Your task to perform on an android device: open chrome privacy settings Image 0: 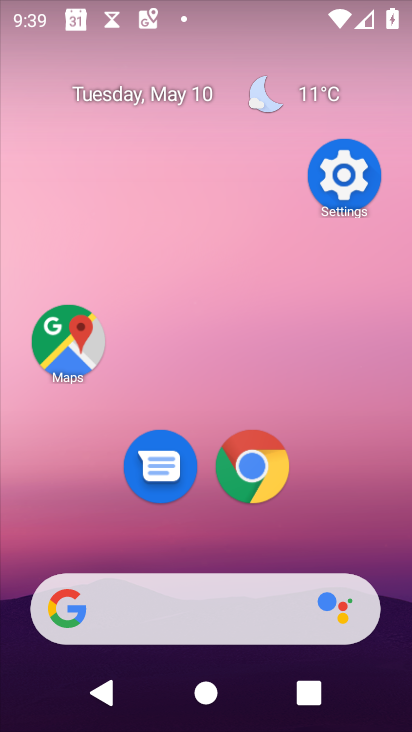
Step 0: click (253, 455)
Your task to perform on an android device: open chrome privacy settings Image 1: 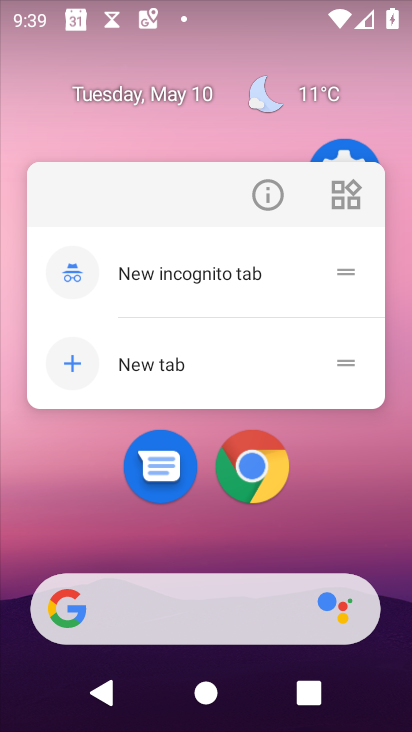
Step 1: click (259, 473)
Your task to perform on an android device: open chrome privacy settings Image 2: 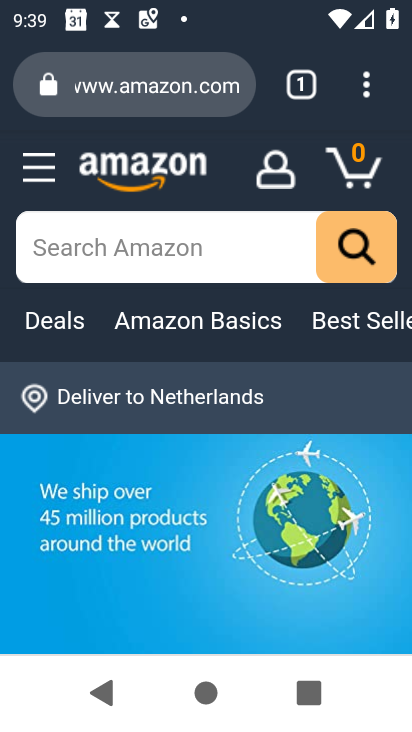
Step 2: click (364, 94)
Your task to perform on an android device: open chrome privacy settings Image 3: 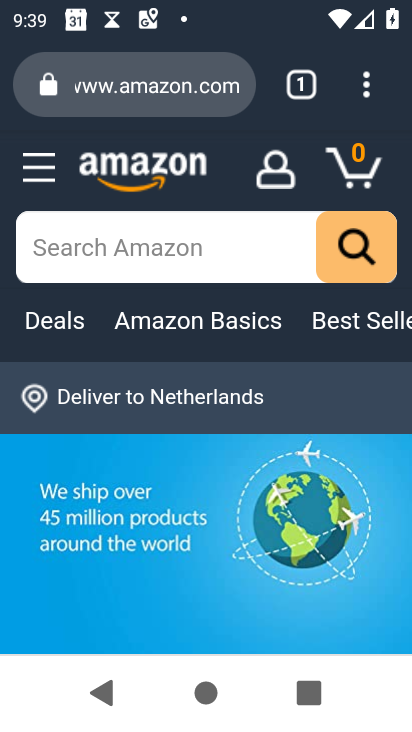
Step 3: click (358, 92)
Your task to perform on an android device: open chrome privacy settings Image 4: 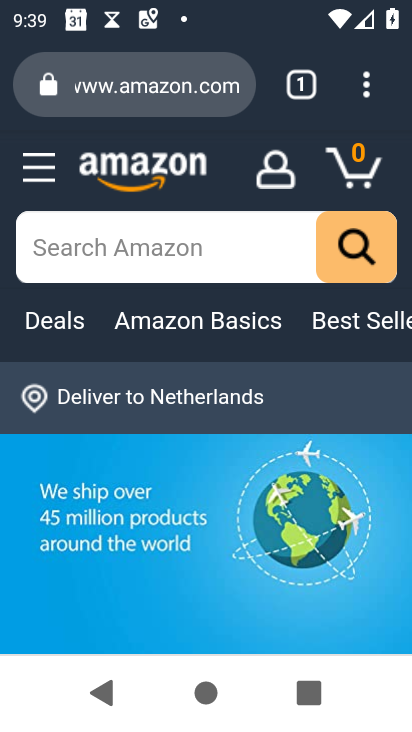
Step 4: click (364, 93)
Your task to perform on an android device: open chrome privacy settings Image 5: 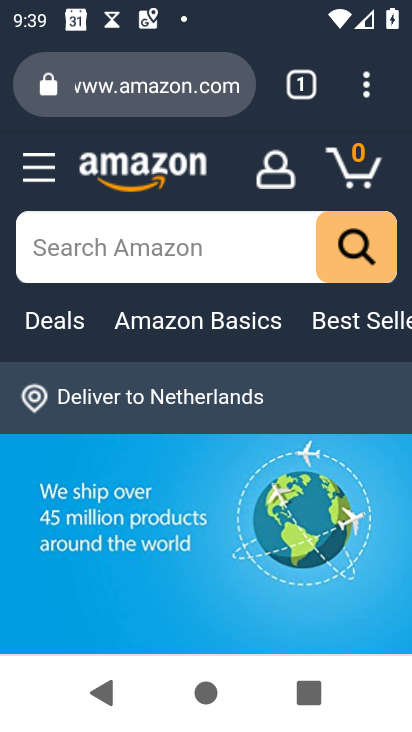
Step 5: click (393, 95)
Your task to perform on an android device: open chrome privacy settings Image 6: 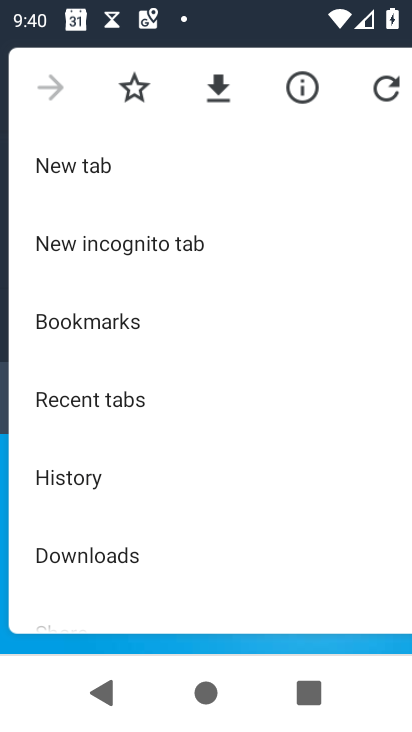
Step 6: drag from (208, 597) to (262, 307)
Your task to perform on an android device: open chrome privacy settings Image 7: 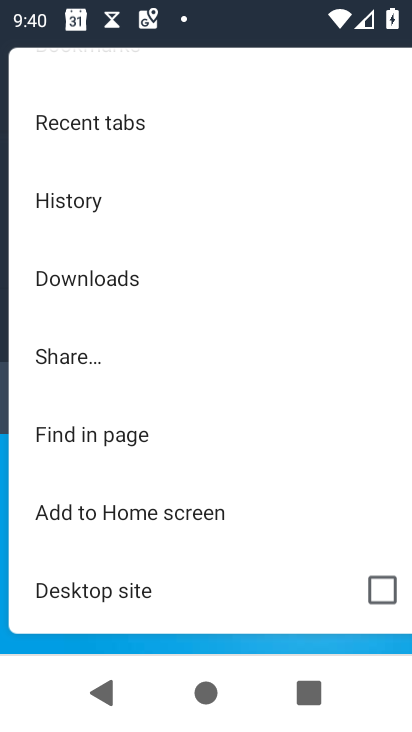
Step 7: drag from (211, 598) to (253, 377)
Your task to perform on an android device: open chrome privacy settings Image 8: 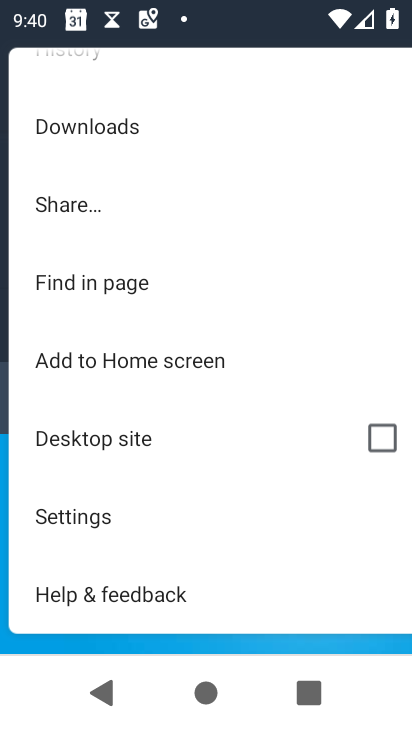
Step 8: click (185, 516)
Your task to perform on an android device: open chrome privacy settings Image 9: 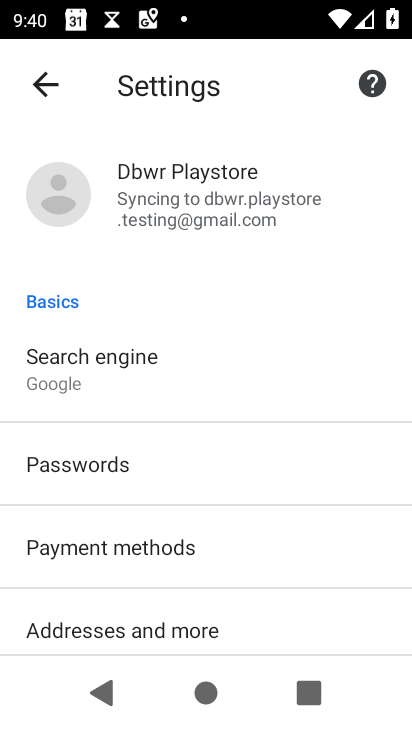
Step 9: drag from (166, 585) to (160, 411)
Your task to perform on an android device: open chrome privacy settings Image 10: 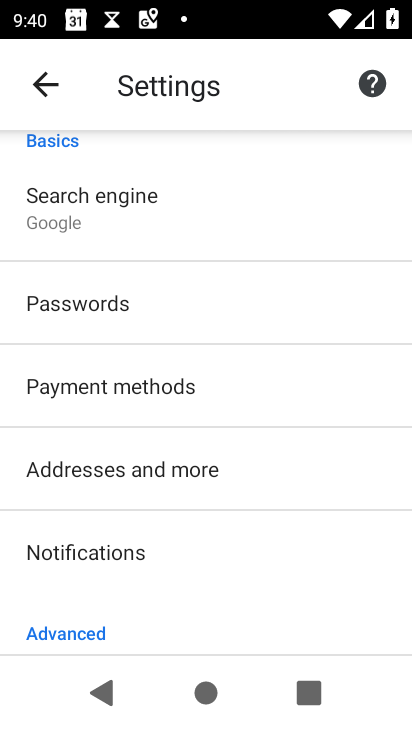
Step 10: drag from (145, 579) to (145, 379)
Your task to perform on an android device: open chrome privacy settings Image 11: 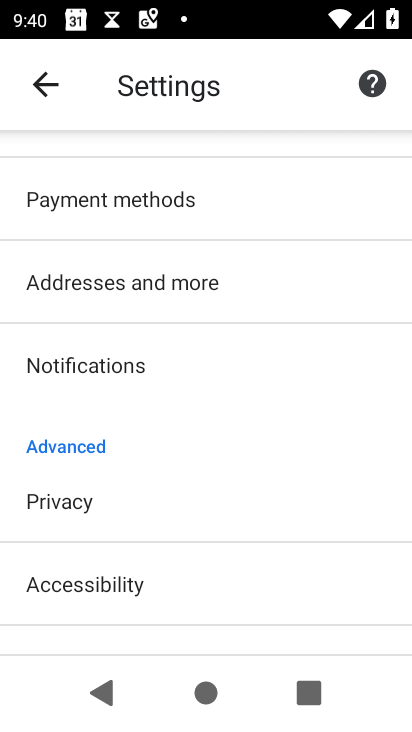
Step 11: click (112, 509)
Your task to perform on an android device: open chrome privacy settings Image 12: 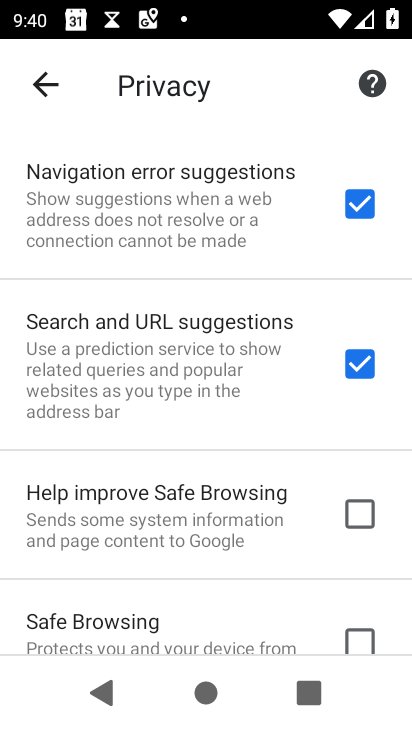
Step 12: task complete